Your task to perform on an android device: turn pop-ups on in chrome Image 0: 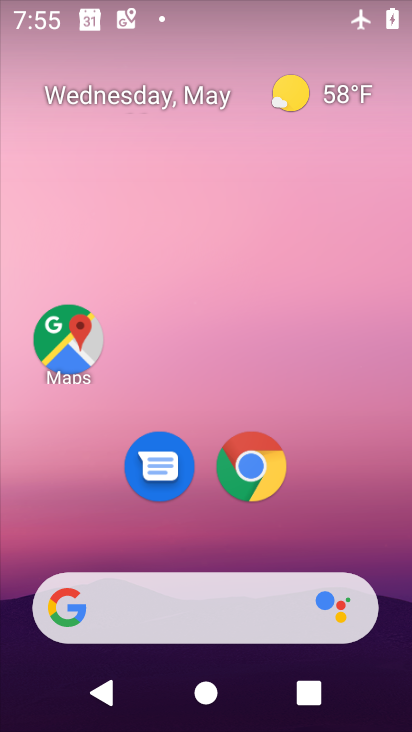
Step 0: press home button
Your task to perform on an android device: turn pop-ups on in chrome Image 1: 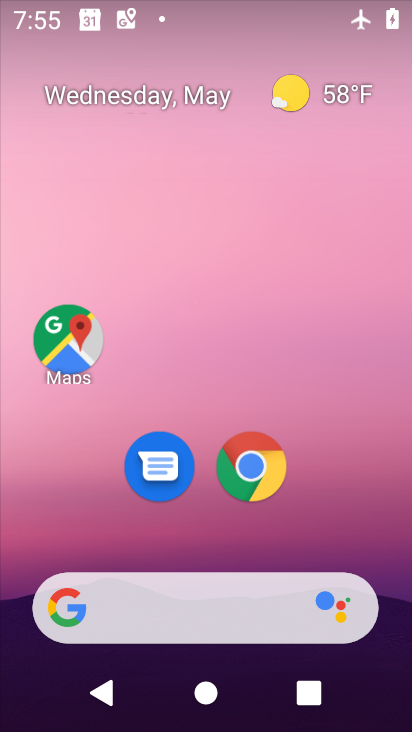
Step 1: click (222, 59)
Your task to perform on an android device: turn pop-ups on in chrome Image 2: 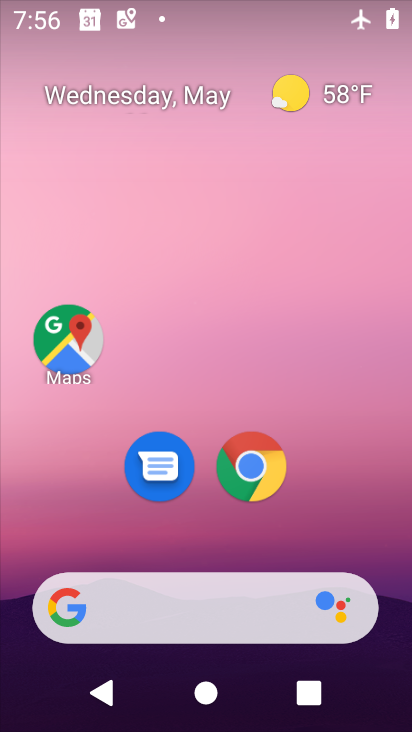
Step 2: click (254, 471)
Your task to perform on an android device: turn pop-ups on in chrome Image 3: 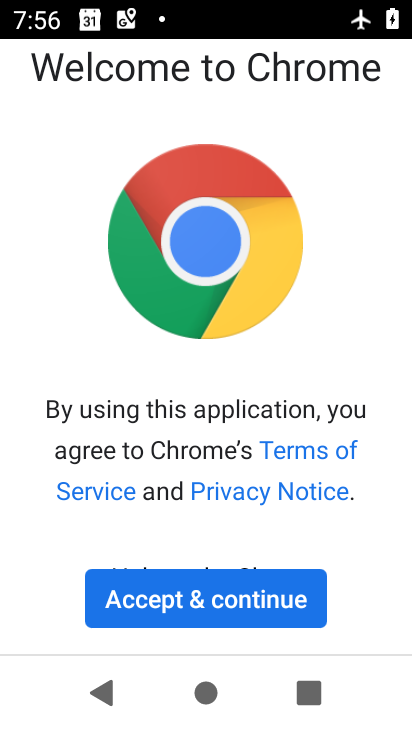
Step 3: click (197, 594)
Your task to perform on an android device: turn pop-ups on in chrome Image 4: 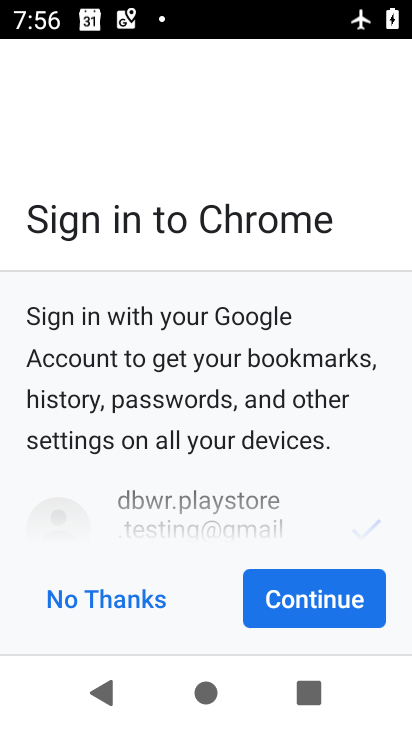
Step 4: click (330, 594)
Your task to perform on an android device: turn pop-ups on in chrome Image 5: 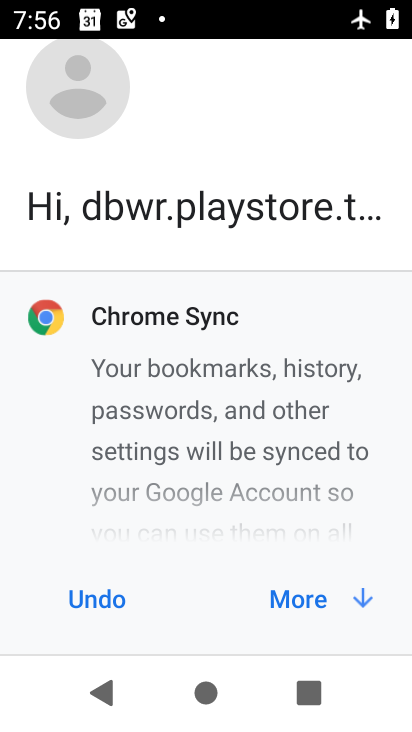
Step 5: click (303, 602)
Your task to perform on an android device: turn pop-ups on in chrome Image 6: 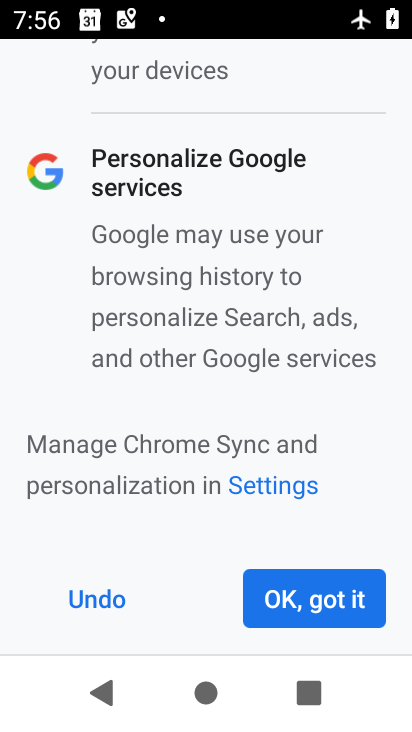
Step 6: click (303, 602)
Your task to perform on an android device: turn pop-ups on in chrome Image 7: 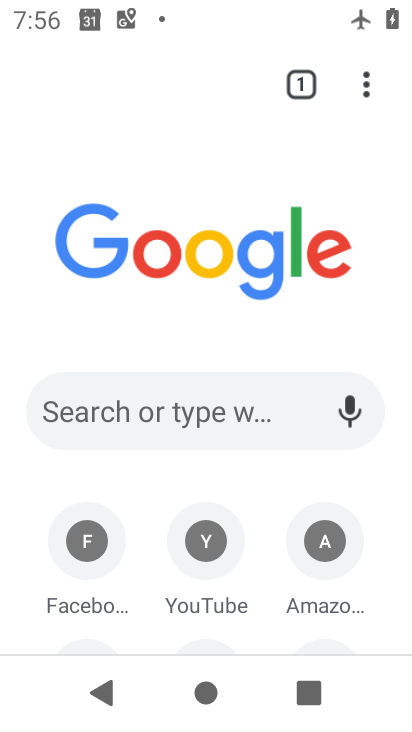
Step 7: click (369, 77)
Your task to perform on an android device: turn pop-ups on in chrome Image 8: 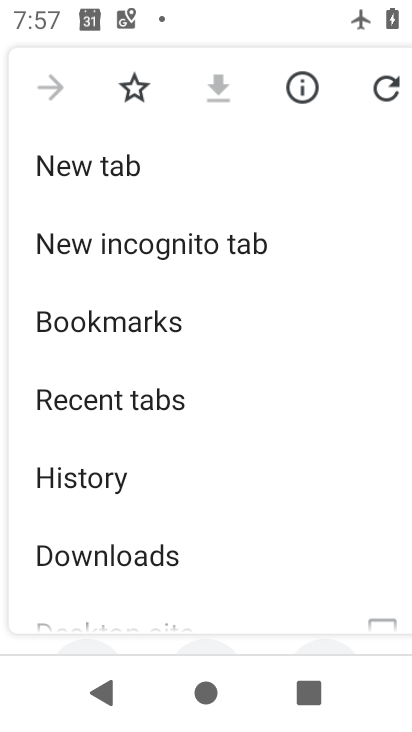
Step 8: drag from (177, 562) to (188, 140)
Your task to perform on an android device: turn pop-ups on in chrome Image 9: 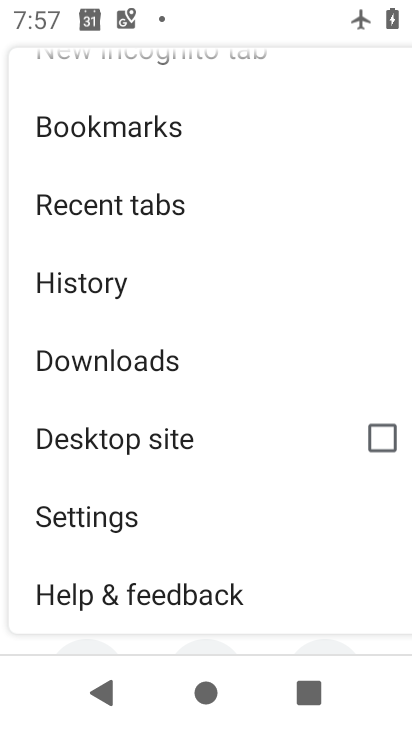
Step 9: click (150, 516)
Your task to perform on an android device: turn pop-ups on in chrome Image 10: 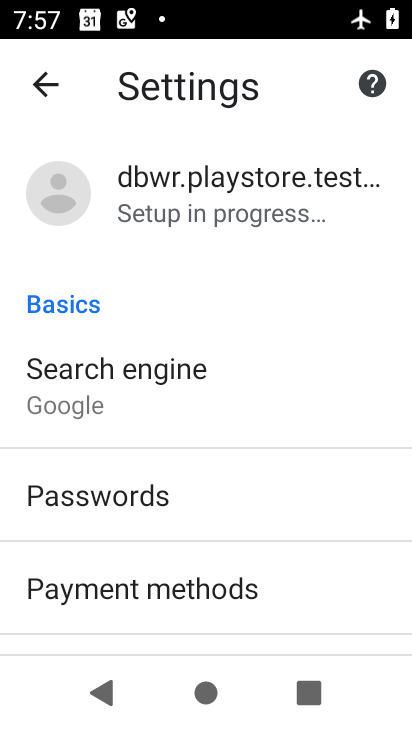
Step 10: drag from (274, 601) to (263, 228)
Your task to perform on an android device: turn pop-ups on in chrome Image 11: 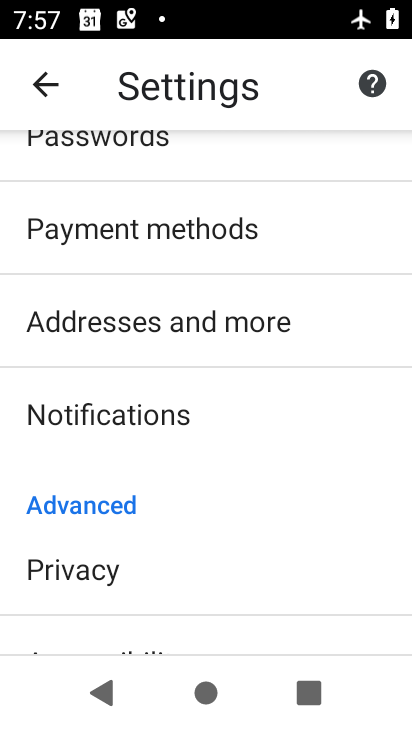
Step 11: drag from (197, 555) to (194, 153)
Your task to perform on an android device: turn pop-ups on in chrome Image 12: 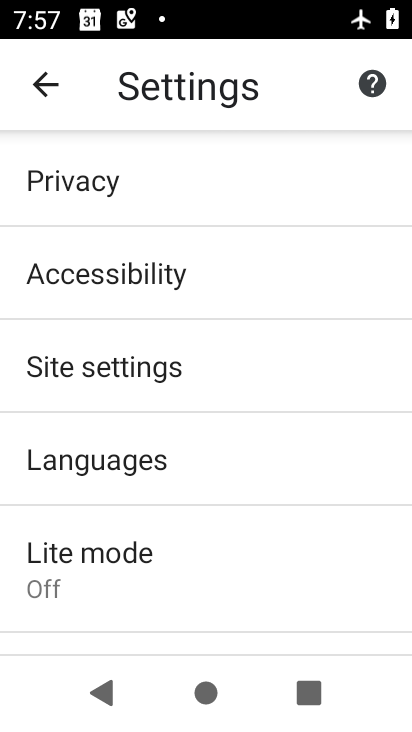
Step 12: click (190, 366)
Your task to perform on an android device: turn pop-ups on in chrome Image 13: 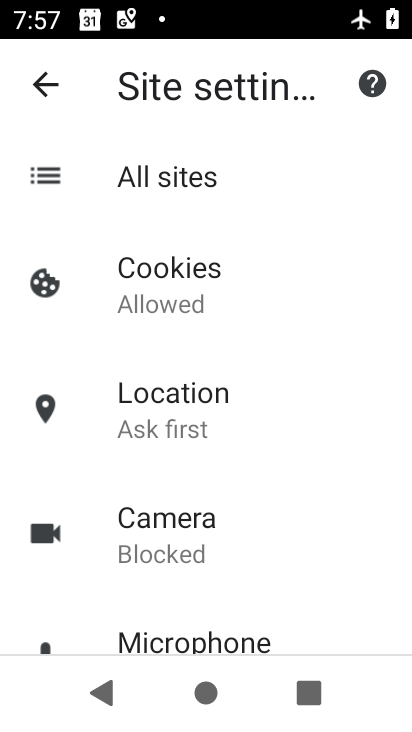
Step 13: drag from (210, 573) to (225, 200)
Your task to perform on an android device: turn pop-ups on in chrome Image 14: 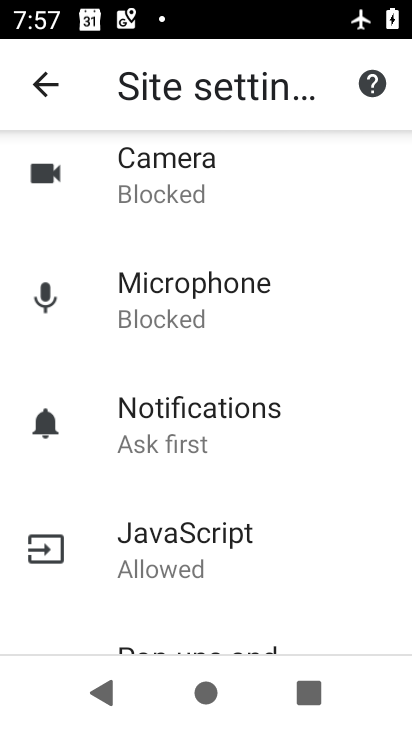
Step 14: drag from (223, 601) to (215, 230)
Your task to perform on an android device: turn pop-ups on in chrome Image 15: 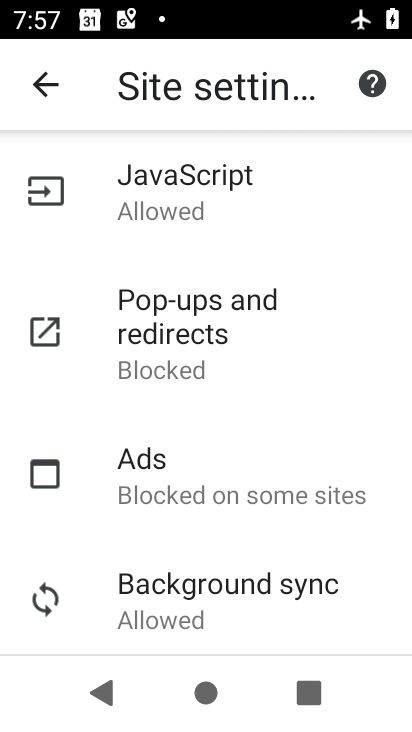
Step 15: click (85, 325)
Your task to perform on an android device: turn pop-ups on in chrome Image 16: 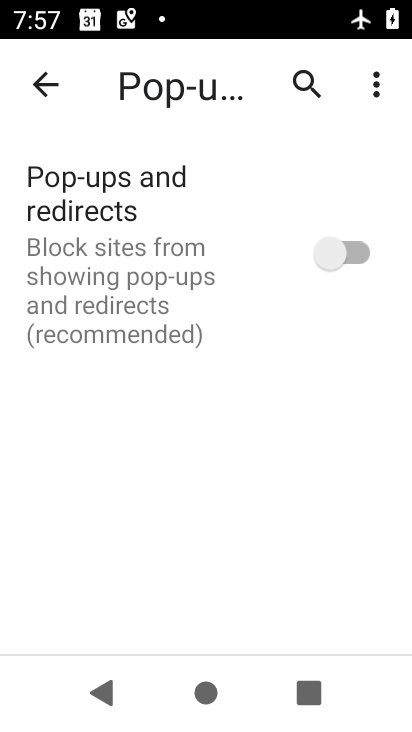
Step 16: click (369, 249)
Your task to perform on an android device: turn pop-ups on in chrome Image 17: 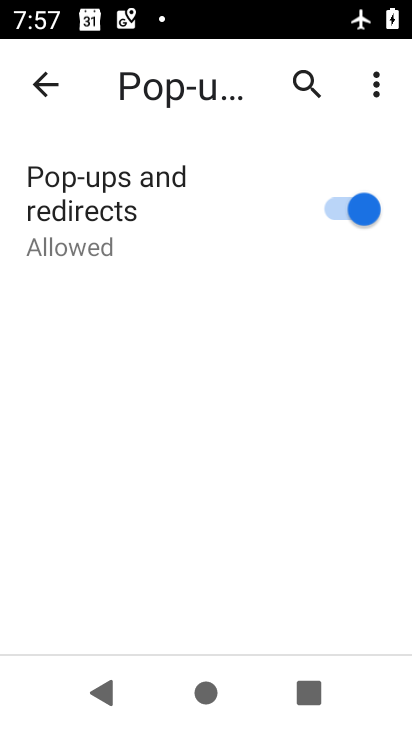
Step 17: task complete